Your task to perform on an android device: move an email to a new category in the gmail app Image 0: 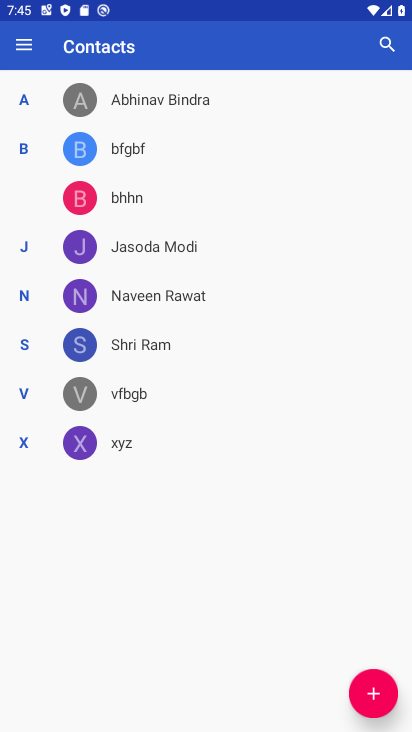
Step 0: press home button
Your task to perform on an android device: move an email to a new category in the gmail app Image 1: 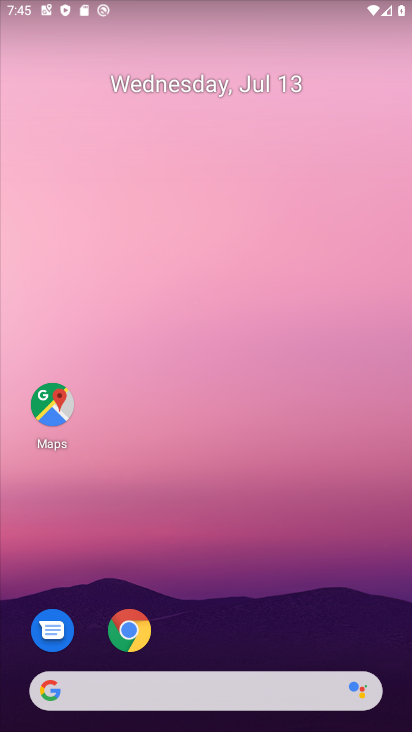
Step 1: drag from (363, 560) to (364, 142)
Your task to perform on an android device: move an email to a new category in the gmail app Image 2: 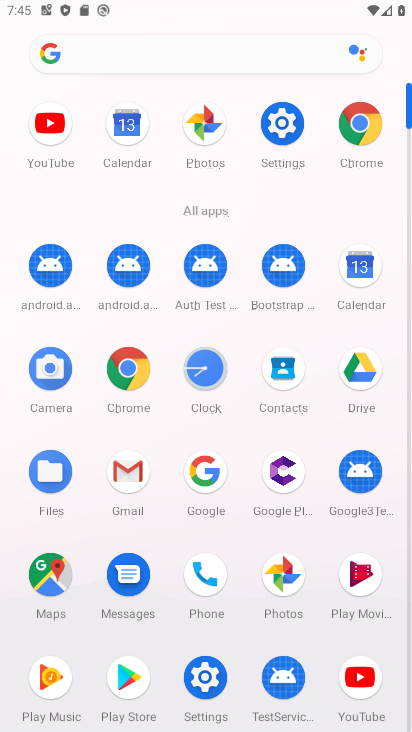
Step 2: click (129, 478)
Your task to perform on an android device: move an email to a new category in the gmail app Image 3: 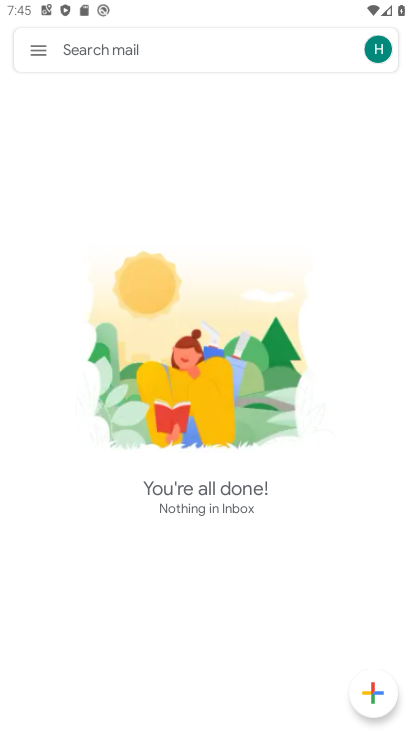
Step 3: click (33, 50)
Your task to perform on an android device: move an email to a new category in the gmail app Image 4: 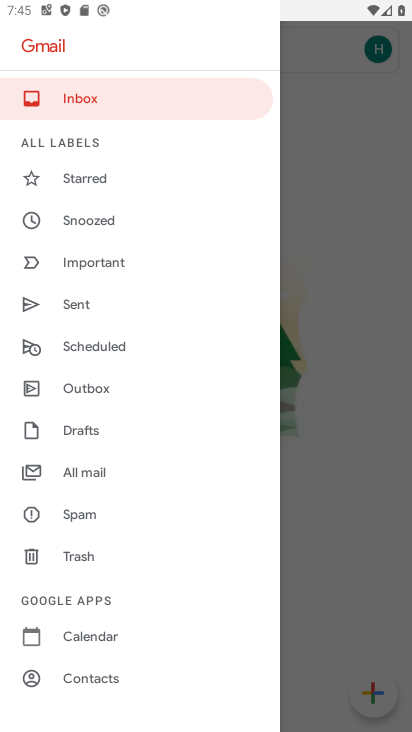
Step 4: drag from (166, 374) to (186, 156)
Your task to perform on an android device: move an email to a new category in the gmail app Image 5: 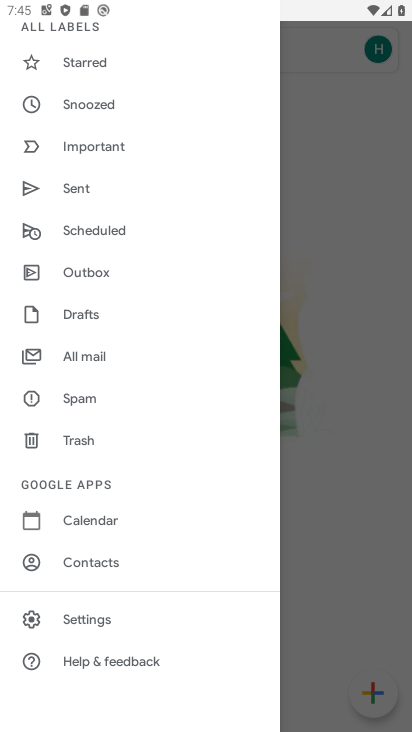
Step 5: click (128, 353)
Your task to perform on an android device: move an email to a new category in the gmail app Image 6: 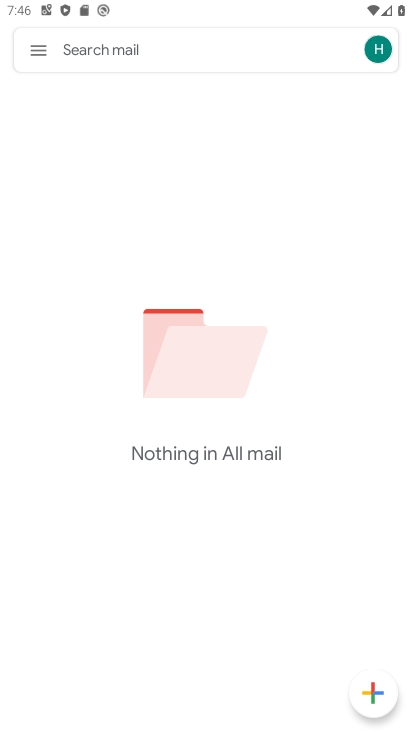
Step 6: task complete